Your task to perform on an android device: remove spam from my inbox in the gmail app Image 0: 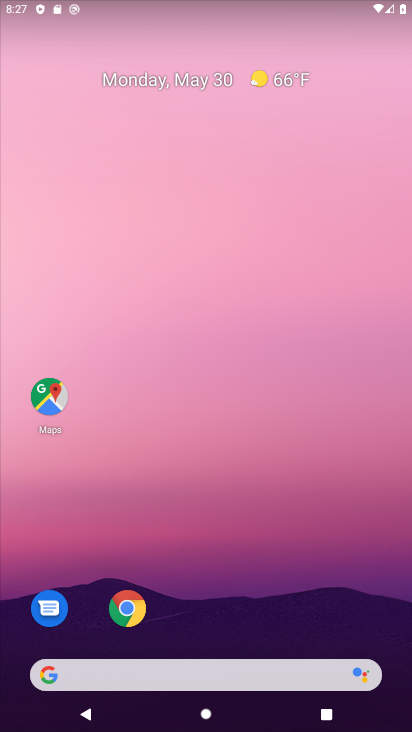
Step 0: drag from (223, 719) to (232, 67)
Your task to perform on an android device: remove spam from my inbox in the gmail app Image 1: 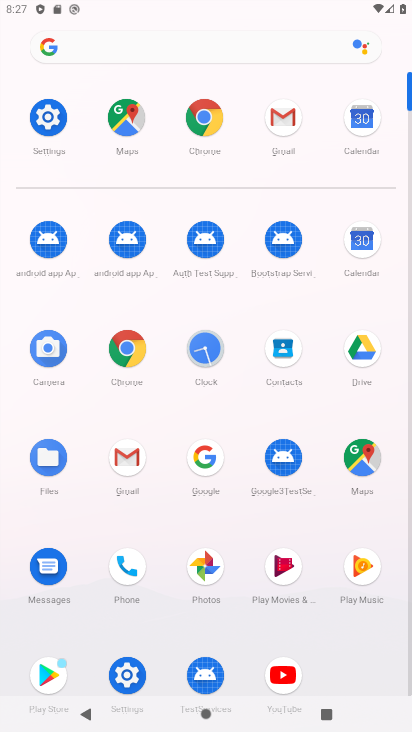
Step 1: click (127, 455)
Your task to perform on an android device: remove spam from my inbox in the gmail app Image 2: 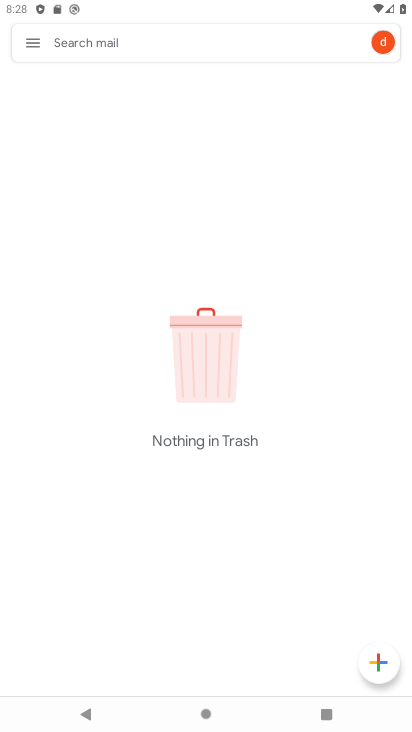
Step 2: click (26, 48)
Your task to perform on an android device: remove spam from my inbox in the gmail app Image 3: 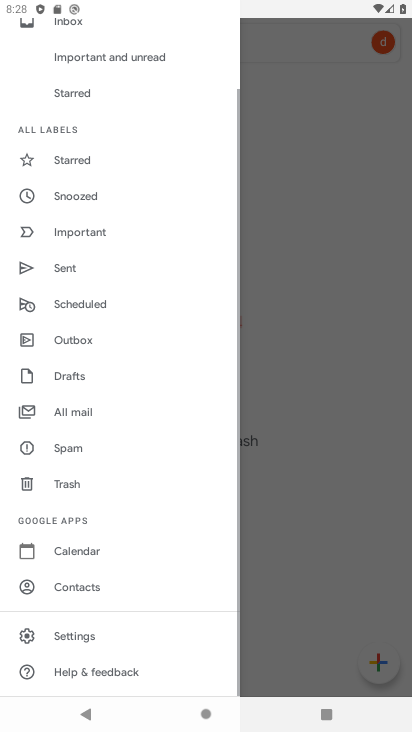
Step 3: drag from (155, 331) to (159, 475)
Your task to perform on an android device: remove spam from my inbox in the gmail app Image 4: 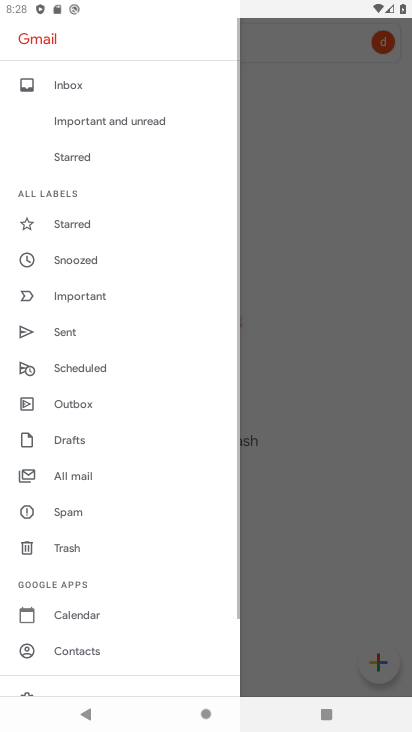
Step 4: click (73, 83)
Your task to perform on an android device: remove spam from my inbox in the gmail app Image 5: 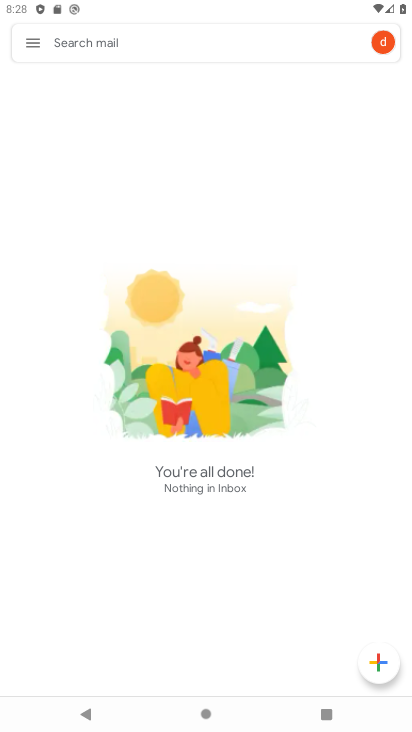
Step 5: task complete